Your task to perform on an android device: turn off picture-in-picture Image 0: 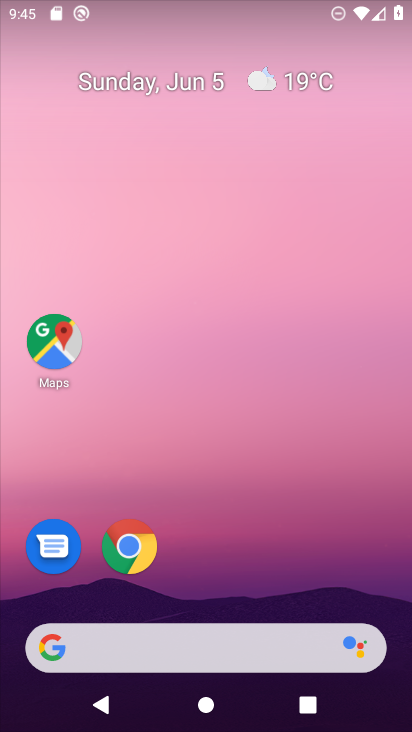
Step 0: drag from (252, 612) to (174, 12)
Your task to perform on an android device: turn off picture-in-picture Image 1: 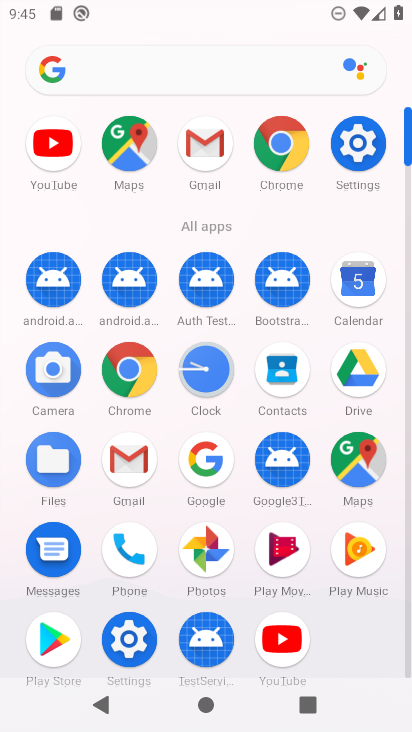
Step 1: click (377, 147)
Your task to perform on an android device: turn off picture-in-picture Image 2: 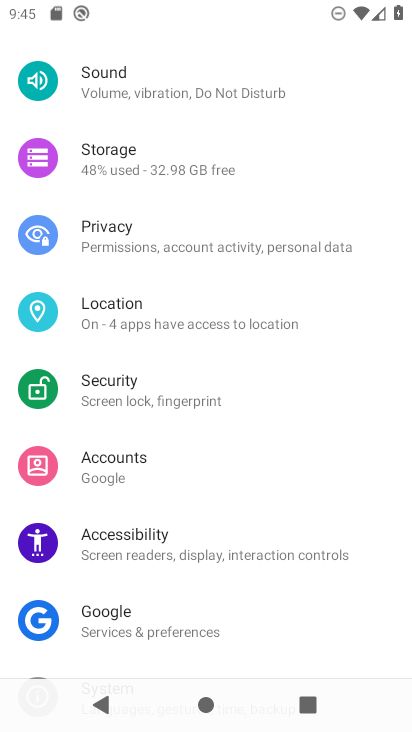
Step 2: drag from (264, 354) to (229, 683)
Your task to perform on an android device: turn off picture-in-picture Image 3: 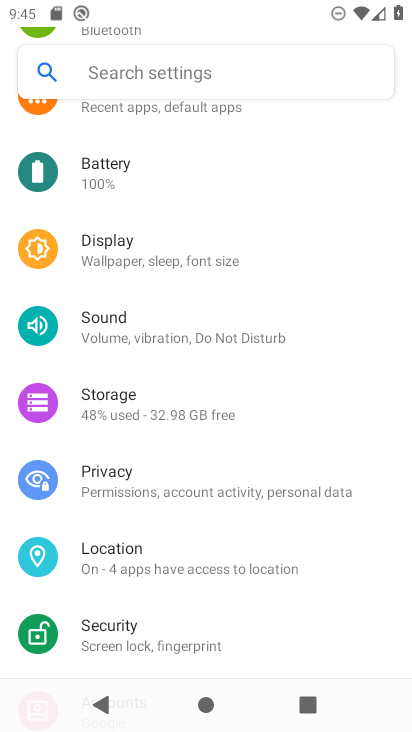
Step 3: drag from (280, 559) to (150, 37)
Your task to perform on an android device: turn off picture-in-picture Image 4: 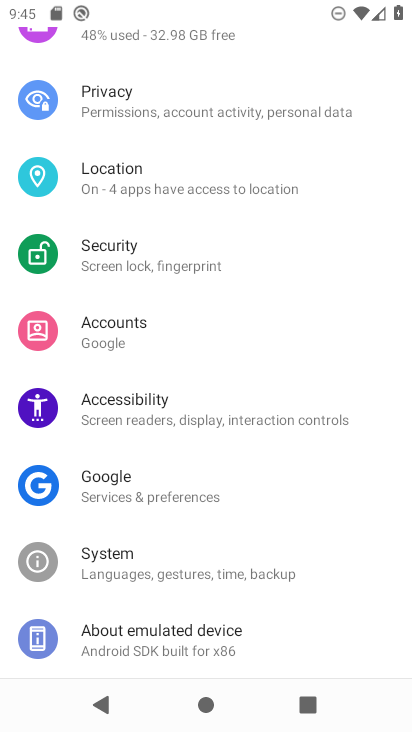
Step 4: drag from (181, 155) to (179, 547)
Your task to perform on an android device: turn off picture-in-picture Image 5: 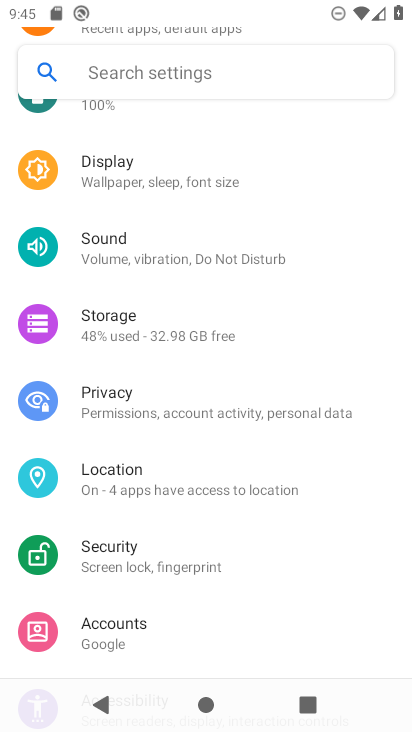
Step 5: drag from (252, 164) to (251, 386)
Your task to perform on an android device: turn off picture-in-picture Image 6: 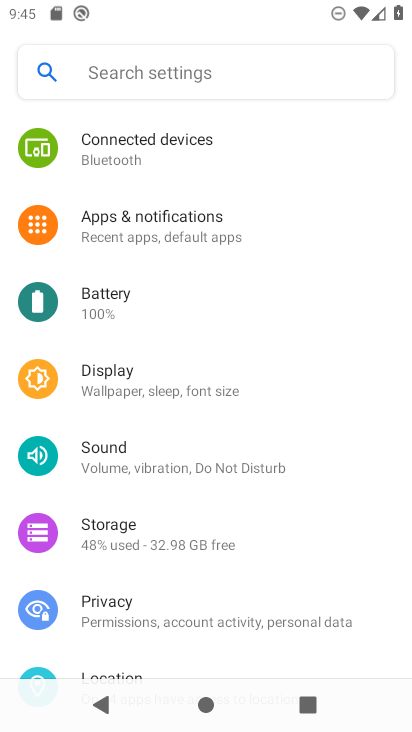
Step 6: click (217, 248)
Your task to perform on an android device: turn off picture-in-picture Image 7: 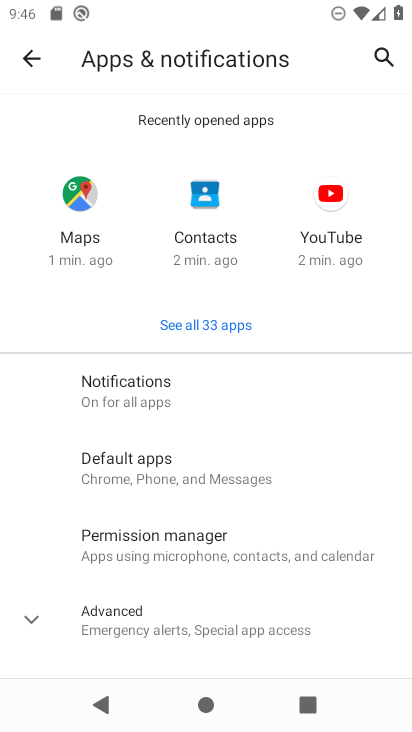
Step 7: task complete